Your task to perform on an android device: Find coffee shops on Maps Image 0: 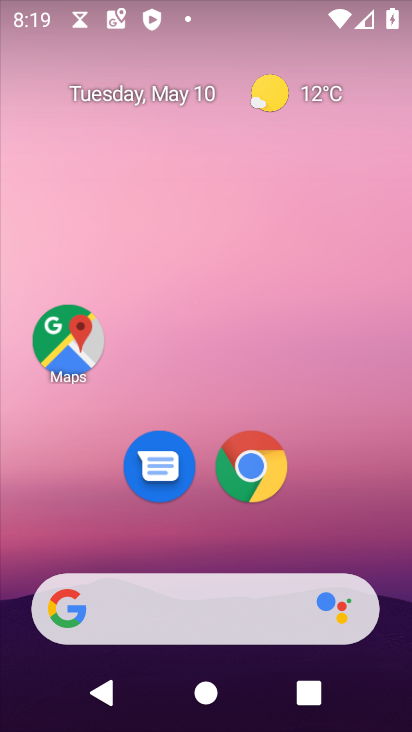
Step 0: drag from (202, 540) to (240, 2)
Your task to perform on an android device: Find coffee shops on Maps Image 1: 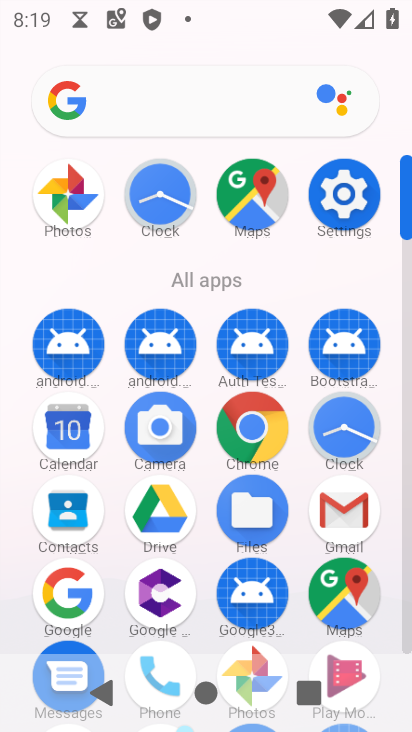
Step 1: click (249, 221)
Your task to perform on an android device: Find coffee shops on Maps Image 2: 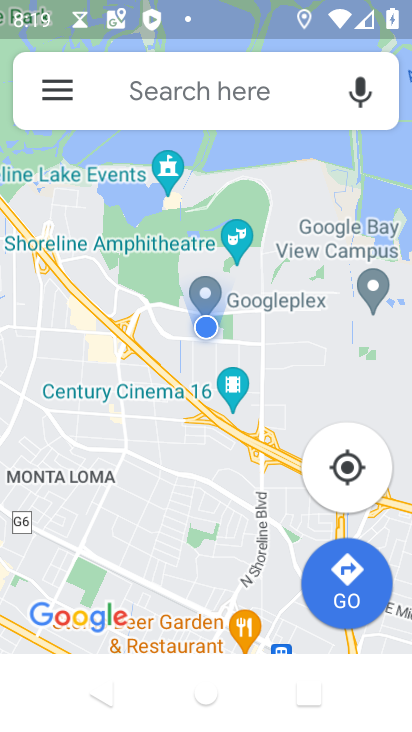
Step 2: click (228, 99)
Your task to perform on an android device: Find coffee shops on Maps Image 3: 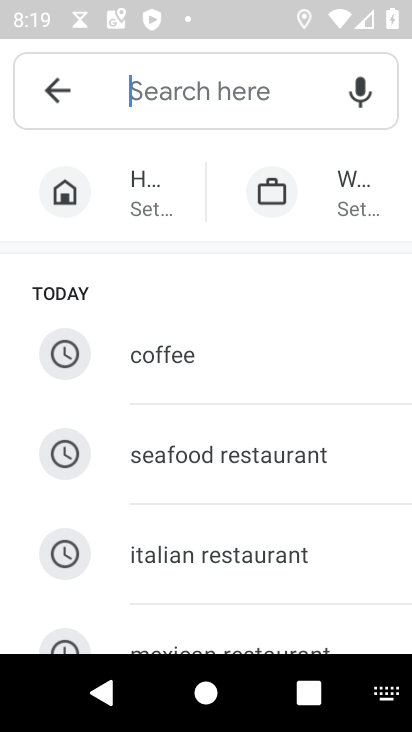
Step 3: type "coffee shops"
Your task to perform on an android device: Find coffee shops on Maps Image 4: 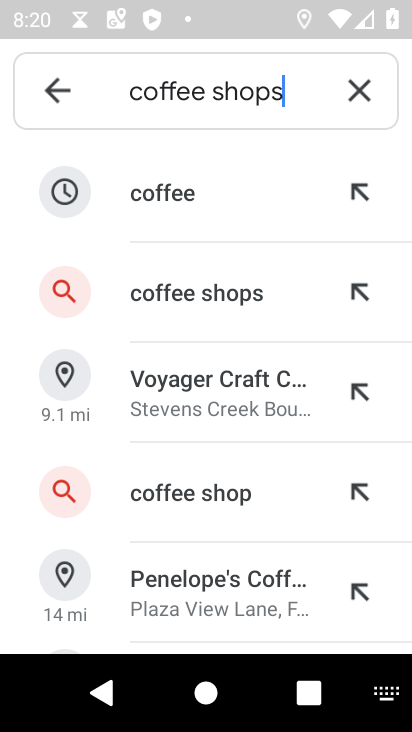
Step 4: click (201, 307)
Your task to perform on an android device: Find coffee shops on Maps Image 5: 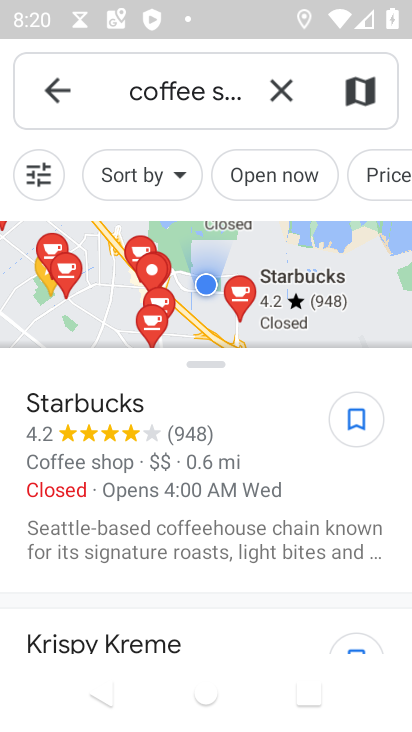
Step 5: task complete